Your task to perform on an android device: toggle sleep mode Image 0: 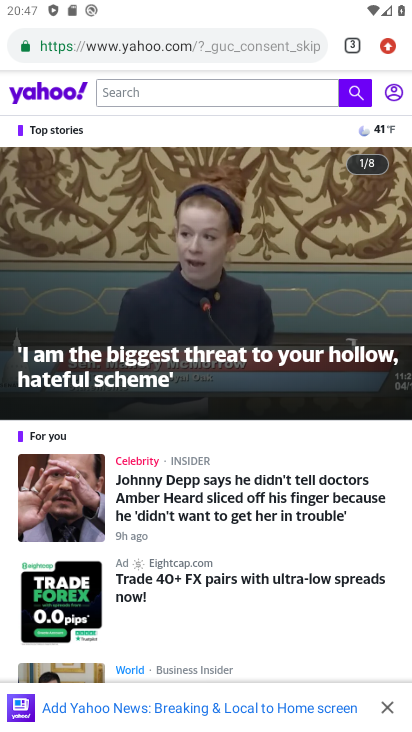
Step 0: press home button
Your task to perform on an android device: toggle sleep mode Image 1: 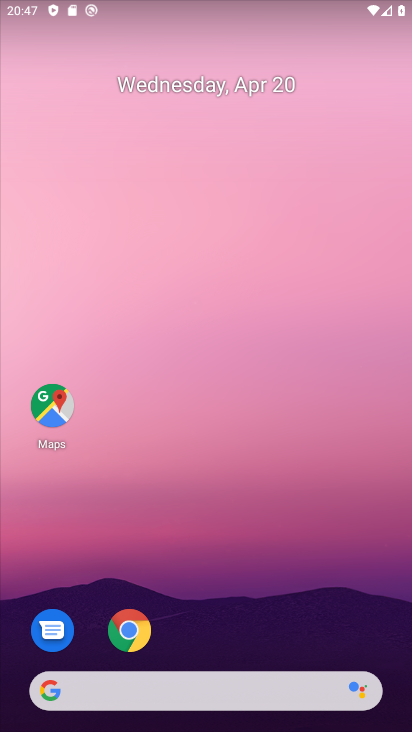
Step 1: drag from (202, 508) to (204, 132)
Your task to perform on an android device: toggle sleep mode Image 2: 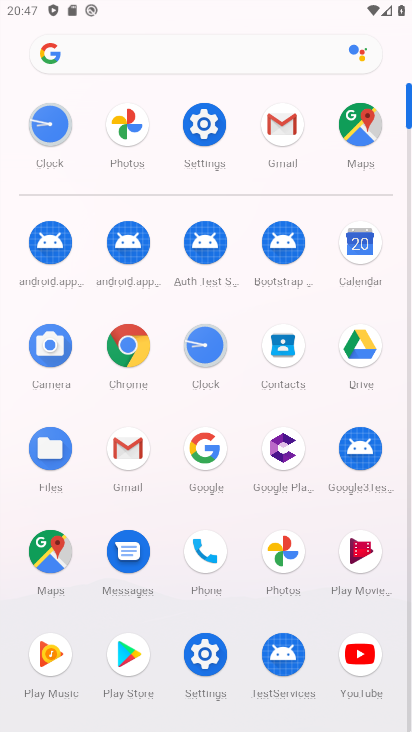
Step 2: click (207, 122)
Your task to perform on an android device: toggle sleep mode Image 3: 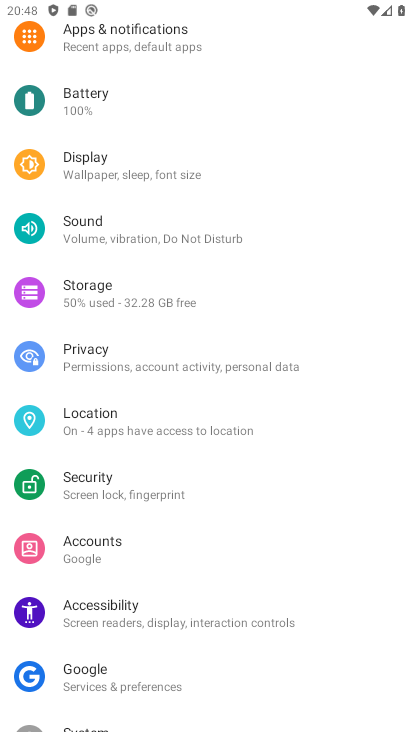
Step 3: click (164, 169)
Your task to perform on an android device: toggle sleep mode Image 4: 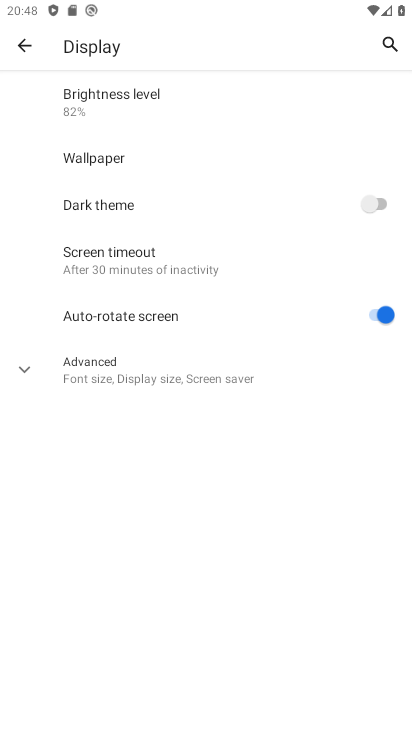
Step 4: click (133, 384)
Your task to perform on an android device: toggle sleep mode Image 5: 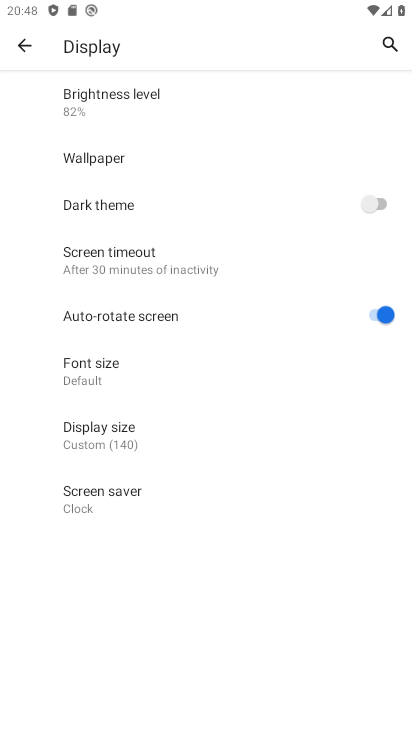
Step 5: task complete